Your task to perform on an android device: Toggle the flashlight Image 0: 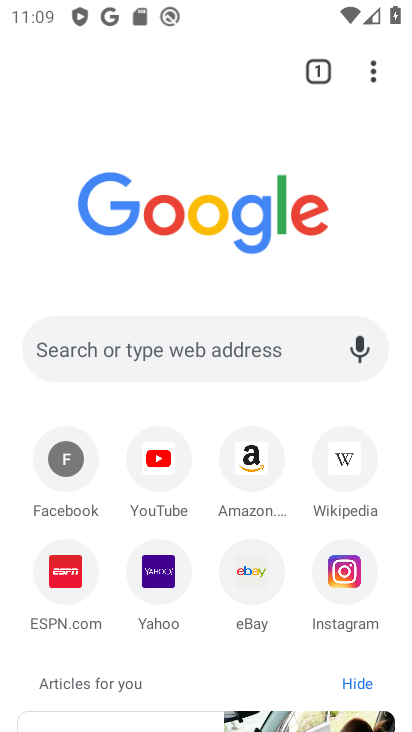
Step 0: press home button
Your task to perform on an android device: Toggle the flashlight Image 1: 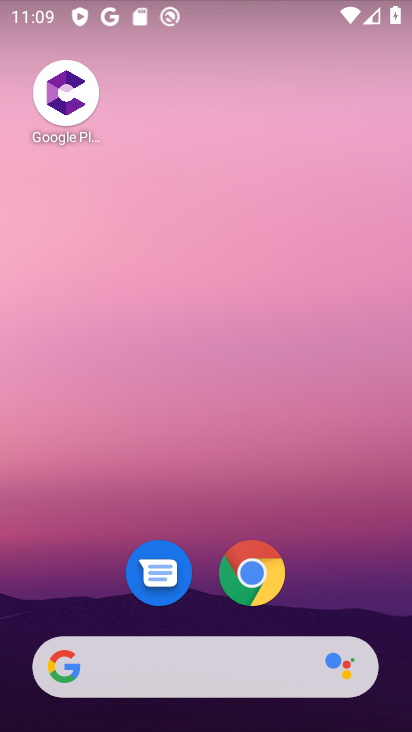
Step 1: task complete